Your task to perform on an android device: Search for Mexican restaurants on Maps Image 0: 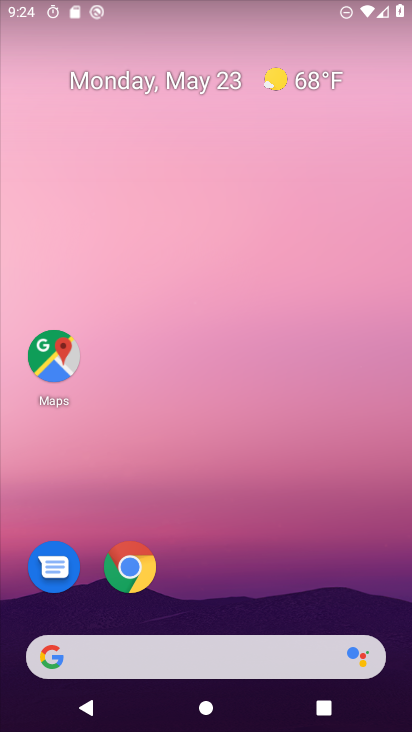
Step 0: drag from (196, 520) to (230, 187)
Your task to perform on an android device: Search for Mexican restaurants on Maps Image 1: 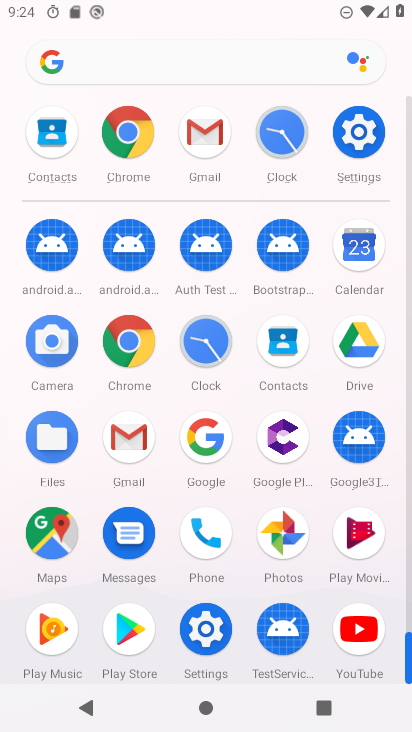
Step 1: click (29, 539)
Your task to perform on an android device: Search for Mexican restaurants on Maps Image 2: 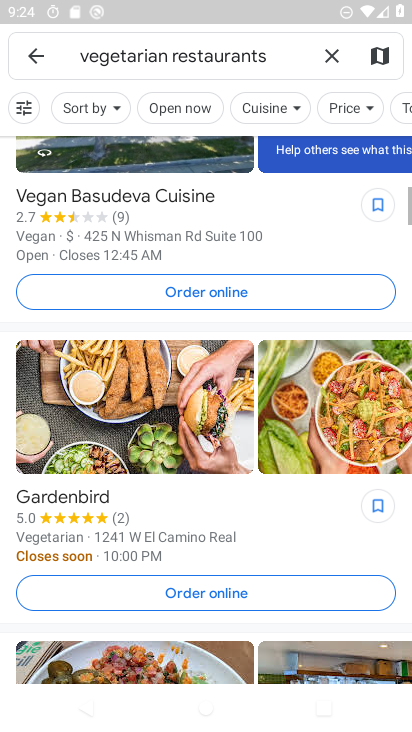
Step 2: click (323, 55)
Your task to perform on an android device: Search for Mexican restaurants on Maps Image 3: 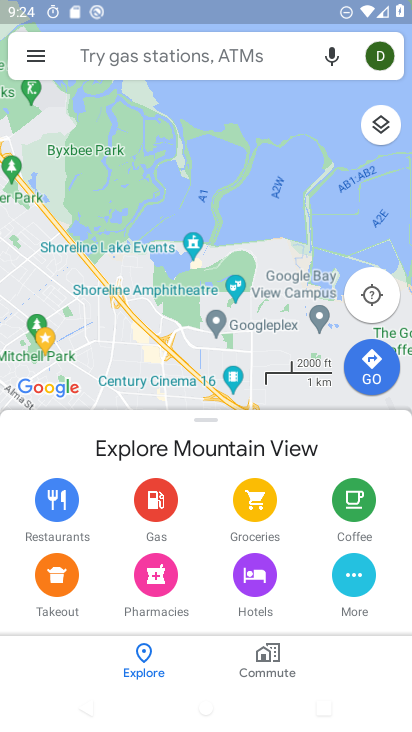
Step 3: click (194, 64)
Your task to perform on an android device: Search for Mexican restaurants on Maps Image 4: 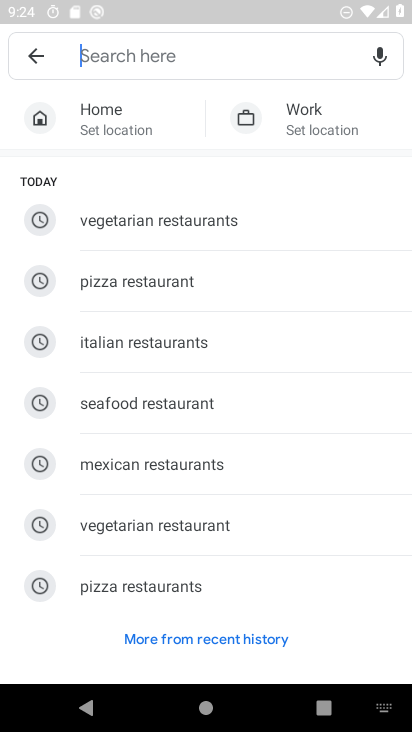
Step 4: click (141, 471)
Your task to perform on an android device: Search for Mexican restaurants on Maps Image 5: 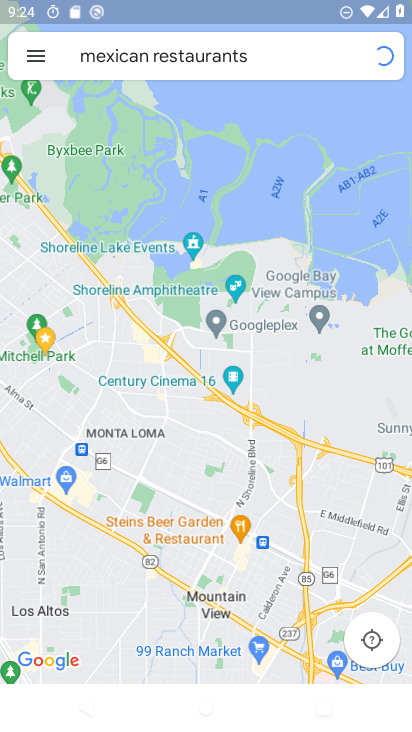
Step 5: task complete